Your task to perform on an android device: Go to Reddit.com Image 0: 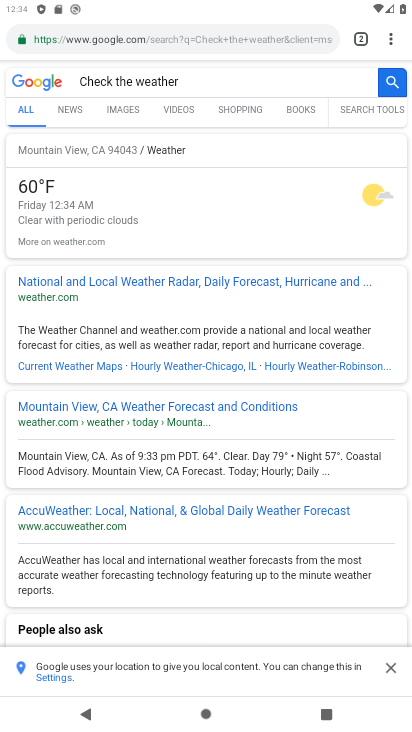
Step 0: press home button
Your task to perform on an android device: Go to Reddit.com Image 1: 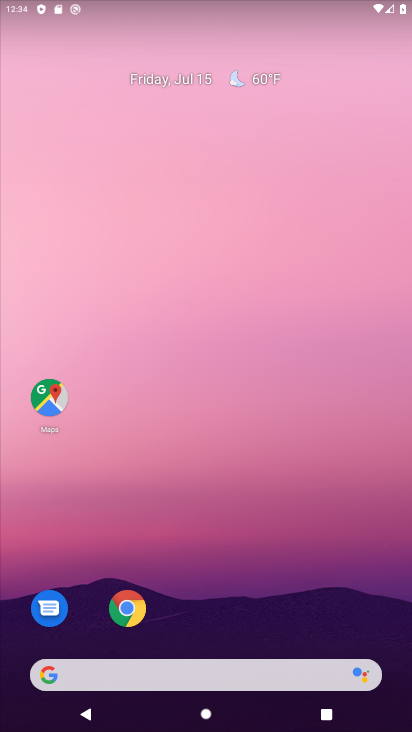
Step 1: drag from (251, 606) to (258, 52)
Your task to perform on an android device: Go to Reddit.com Image 2: 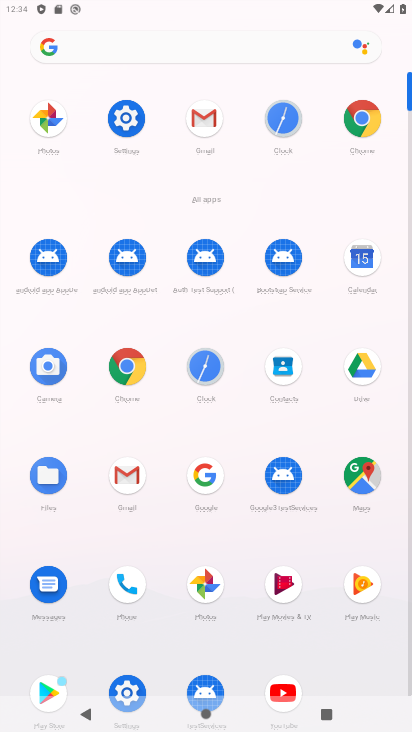
Step 2: click (130, 367)
Your task to perform on an android device: Go to Reddit.com Image 3: 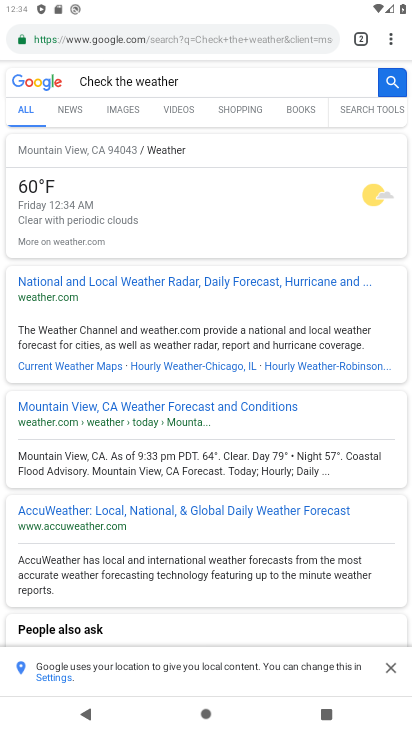
Step 3: click (153, 39)
Your task to perform on an android device: Go to Reddit.com Image 4: 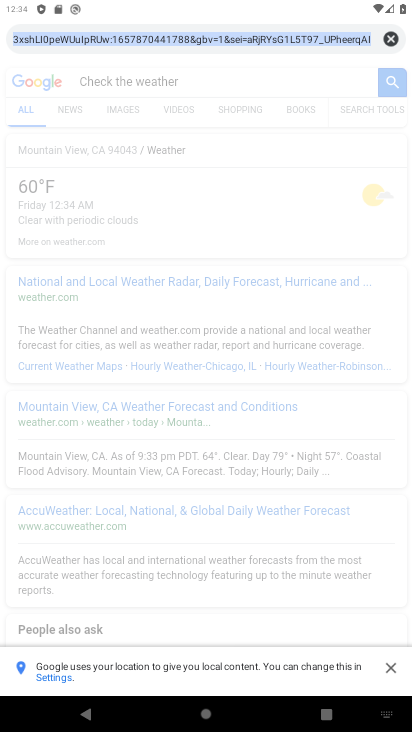
Step 4: click (397, 31)
Your task to perform on an android device: Go to Reddit.com Image 5: 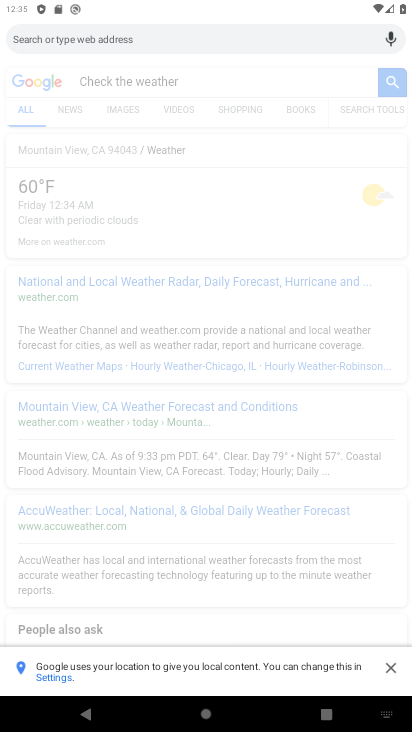
Step 5: type " Reddit.com"
Your task to perform on an android device: Go to Reddit.com Image 6: 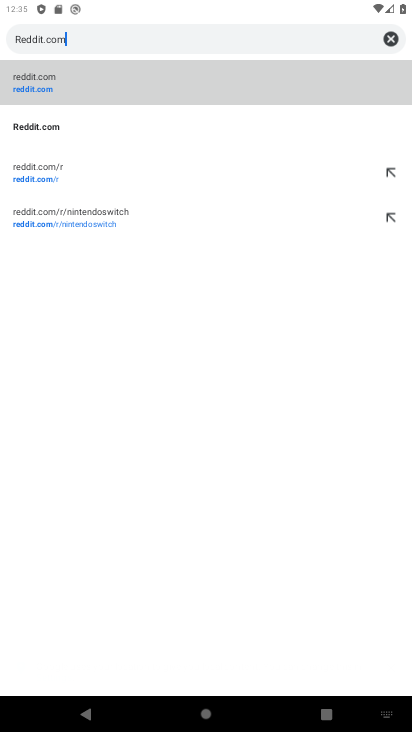
Step 6: click (33, 86)
Your task to perform on an android device: Go to Reddit.com Image 7: 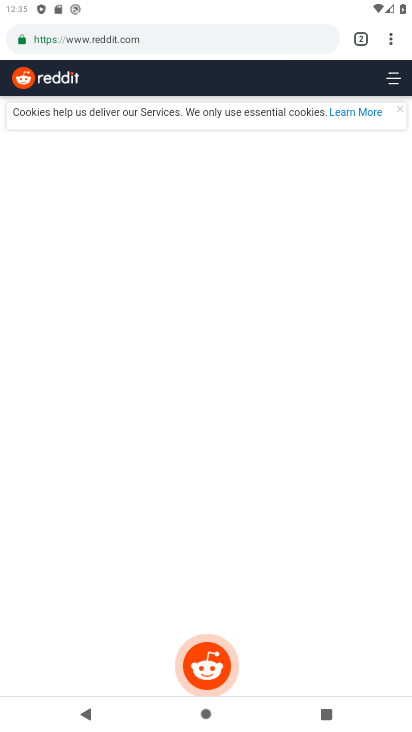
Step 7: task complete